Your task to perform on an android device: Open the map Image 0: 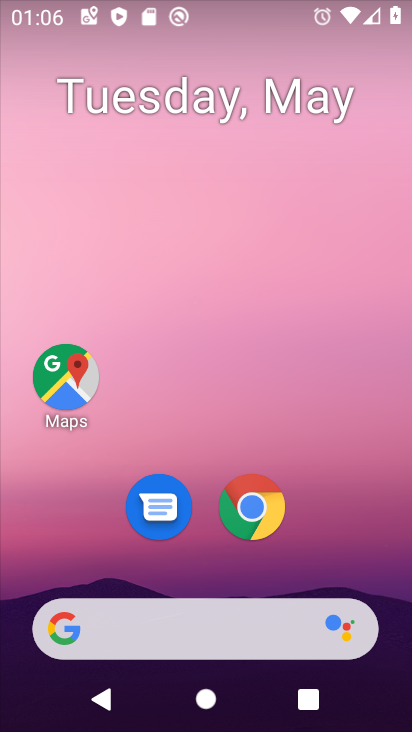
Step 0: click (65, 371)
Your task to perform on an android device: Open the map Image 1: 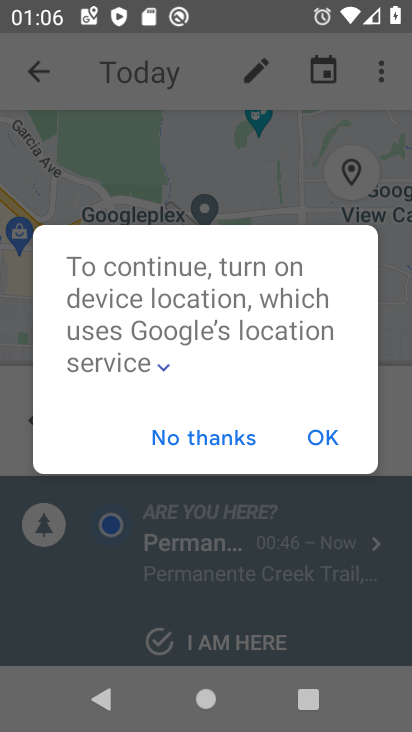
Step 1: click (31, 76)
Your task to perform on an android device: Open the map Image 2: 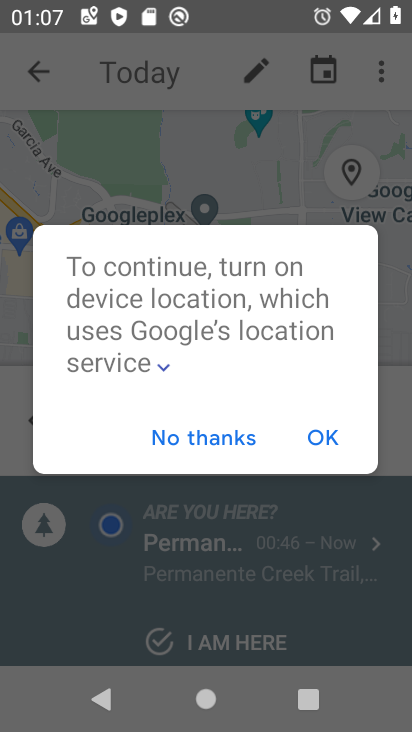
Step 2: click (334, 430)
Your task to perform on an android device: Open the map Image 3: 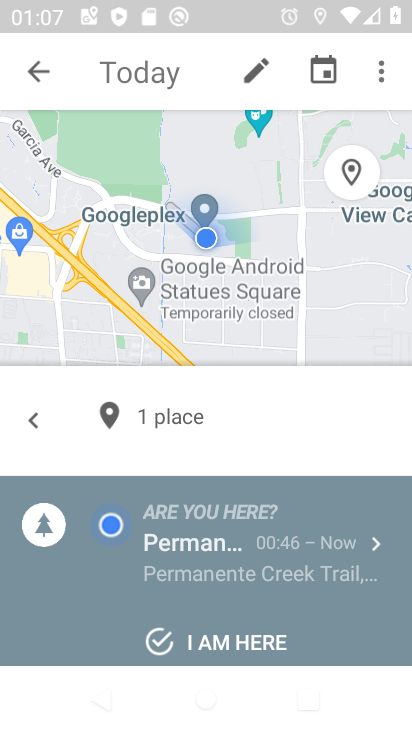
Step 3: click (19, 64)
Your task to perform on an android device: Open the map Image 4: 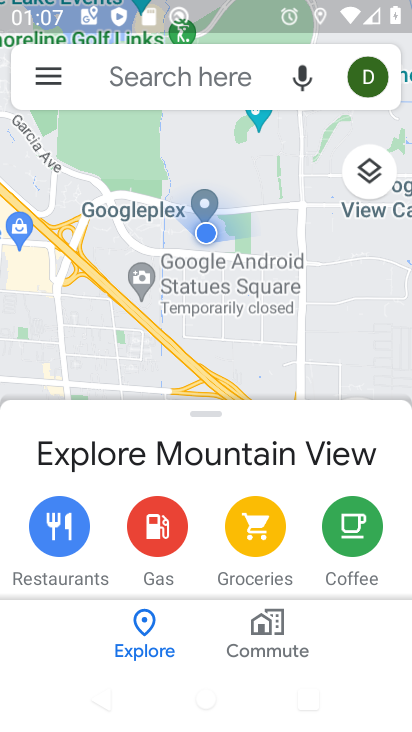
Step 4: task complete